Your task to perform on an android device: Open Google Chrome and click the shortcut for Amazon.com Image 0: 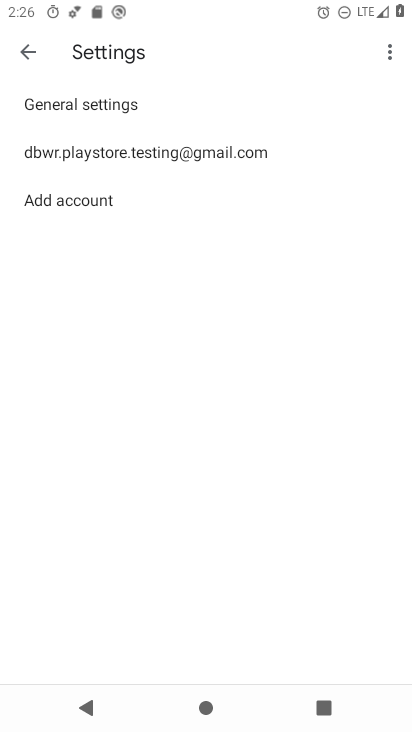
Step 0: press home button
Your task to perform on an android device: Open Google Chrome and click the shortcut for Amazon.com Image 1: 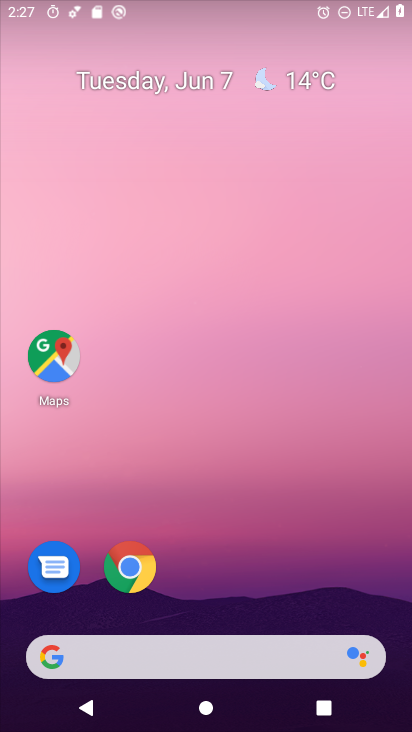
Step 1: drag from (331, 582) to (411, 61)
Your task to perform on an android device: Open Google Chrome and click the shortcut for Amazon.com Image 2: 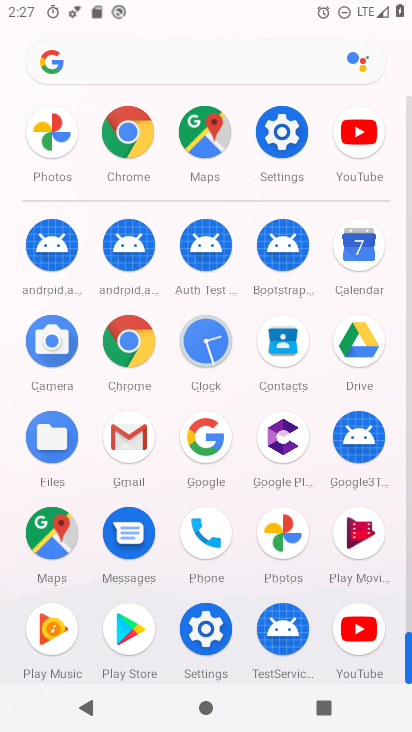
Step 2: click (117, 131)
Your task to perform on an android device: Open Google Chrome and click the shortcut for Amazon.com Image 3: 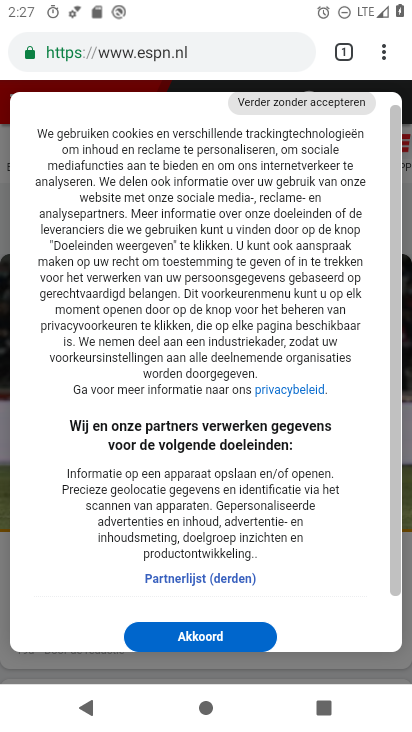
Step 3: click (211, 54)
Your task to perform on an android device: Open Google Chrome and click the shortcut for Amazon.com Image 4: 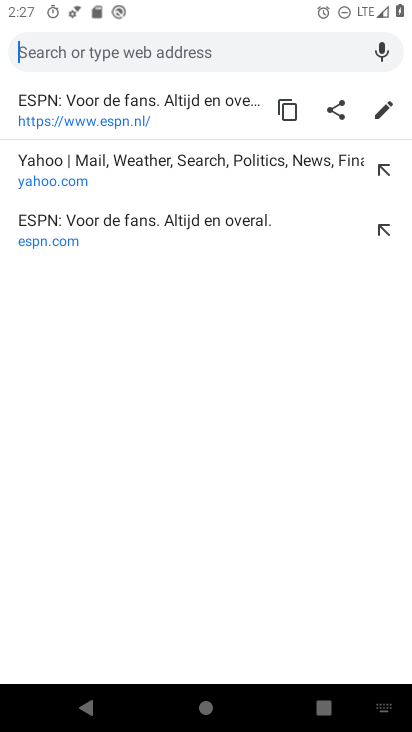
Step 4: type "Amazon.com"
Your task to perform on an android device: Open Google Chrome and click the shortcut for Amazon.com Image 5: 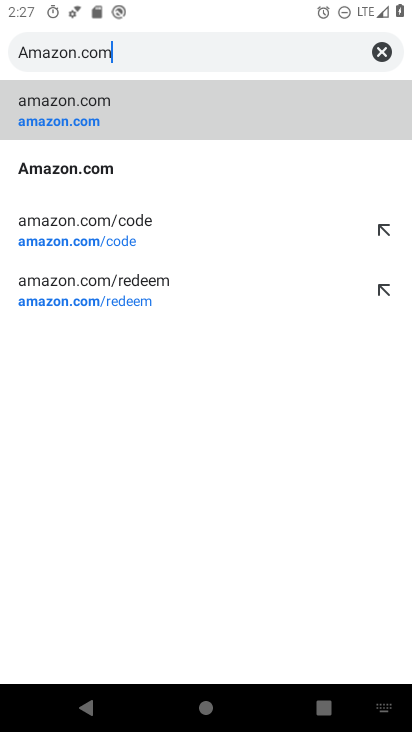
Step 5: click (62, 113)
Your task to perform on an android device: Open Google Chrome and click the shortcut for Amazon.com Image 6: 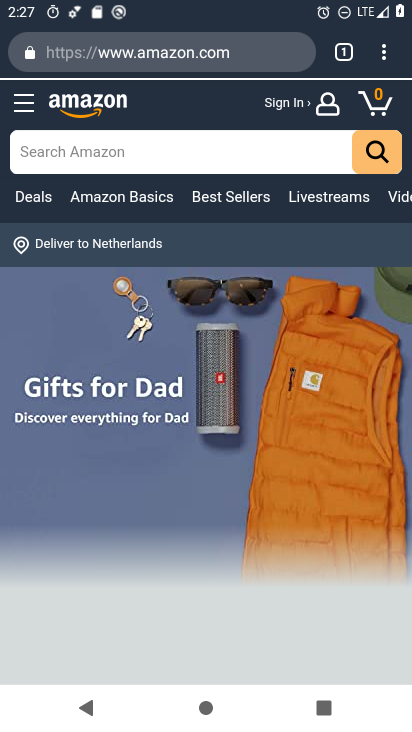
Step 6: drag from (383, 47) to (226, 531)
Your task to perform on an android device: Open Google Chrome and click the shortcut for Amazon.com Image 7: 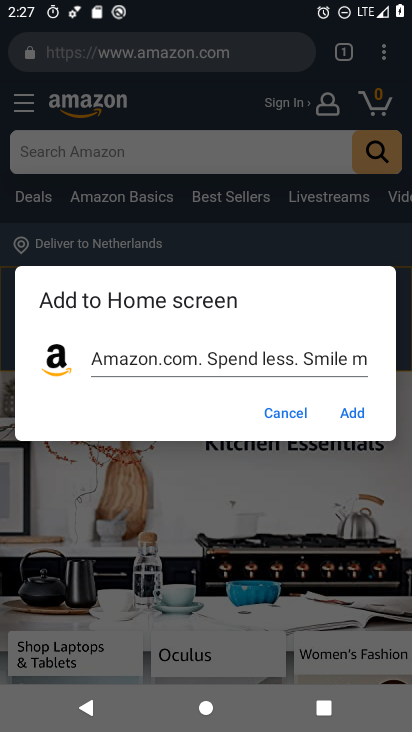
Step 7: click (349, 405)
Your task to perform on an android device: Open Google Chrome and click the shortcut for Amazon.com Image 8: 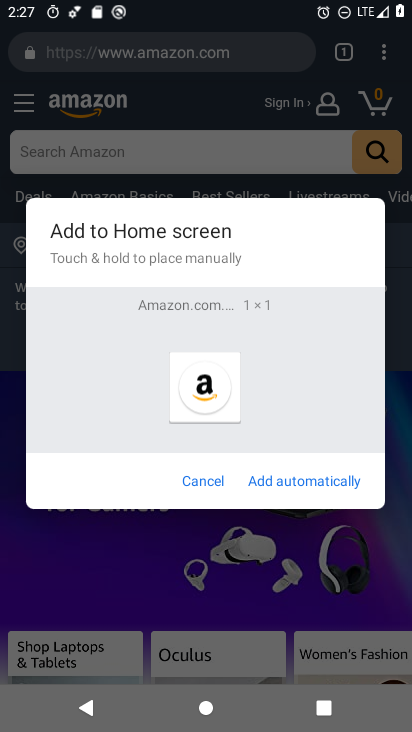
Step 8: click (287, 485)
Your task to perform on an android device: Open Google Chrome and click the shortcut for Amazon.com Image 9: 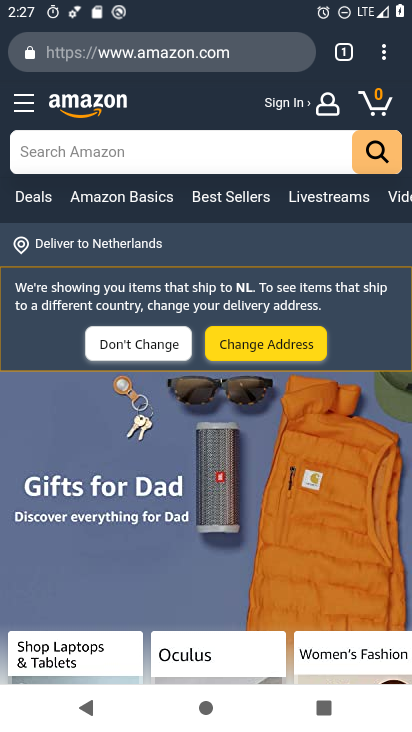
Step 9: task complete